Your task to perform on an android device: Is it going to rain this weekend? Image 0: 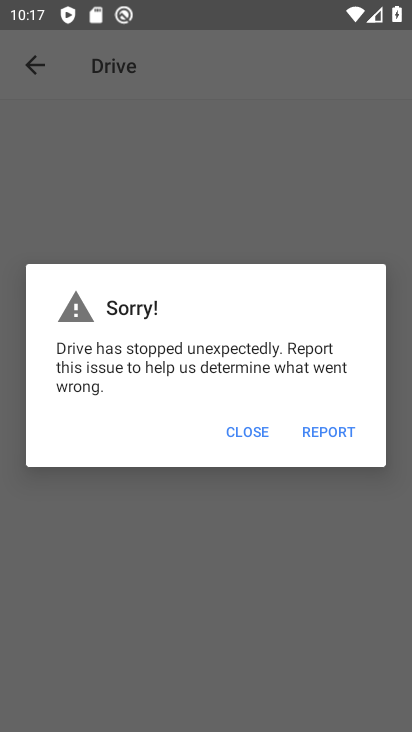
Step 0: press home button
Your task to perform on an android device: Is it going to rain this weekend? Image 1: 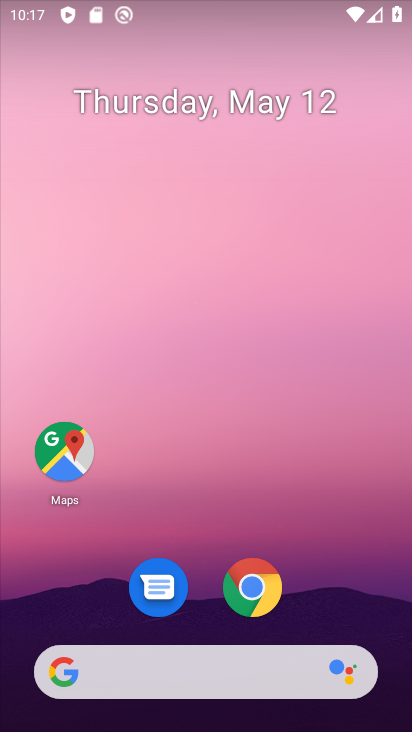
Step 1: drag from (353, 499) to (391, 65)
Your task to perform on an android device: Is it going to rain this weekend? Image 2: 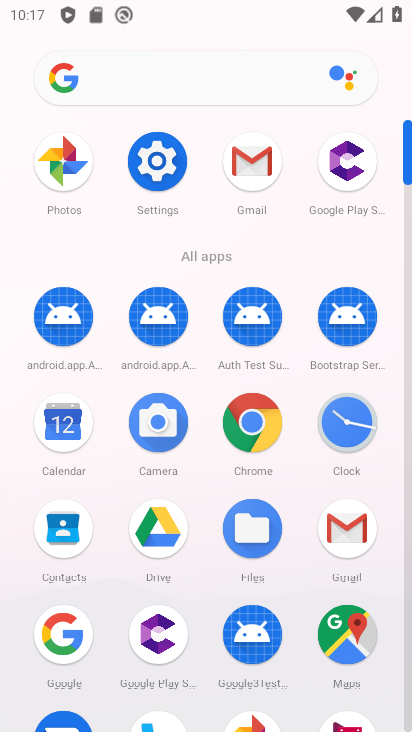
Step 2: press home button
Your task to perform on an android device: Is it going to rain this weekend? Image 3: 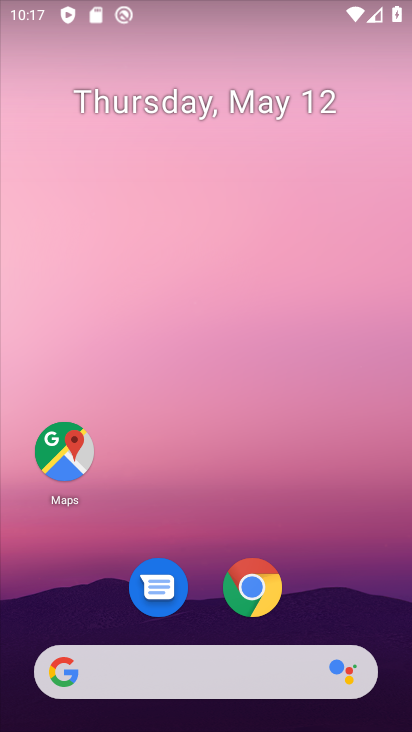
Step 3: drag from (356, 517) to (354, 228)
Your task to perform on an android device: Is it going to rain this weekend? Image 4: 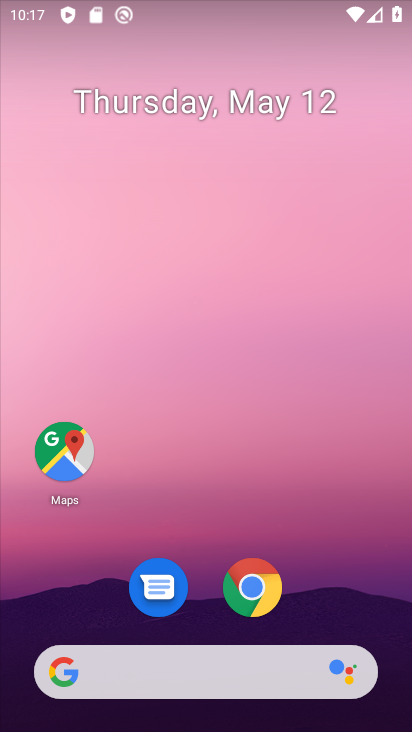
Step 4: drag from (338, 587) to (357, 69)
Your task to perform on an android device: Is it going to rain this weekend? Image 5: 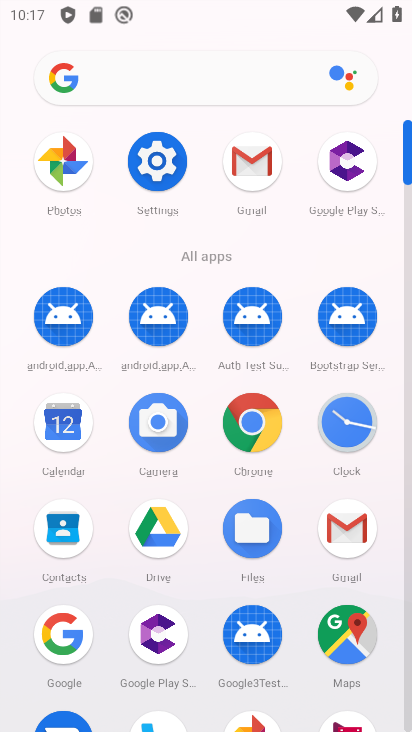
Step 5: click (49, 635)
Your task to perform on an android device: Is it going to rain this weekend? Image 6: 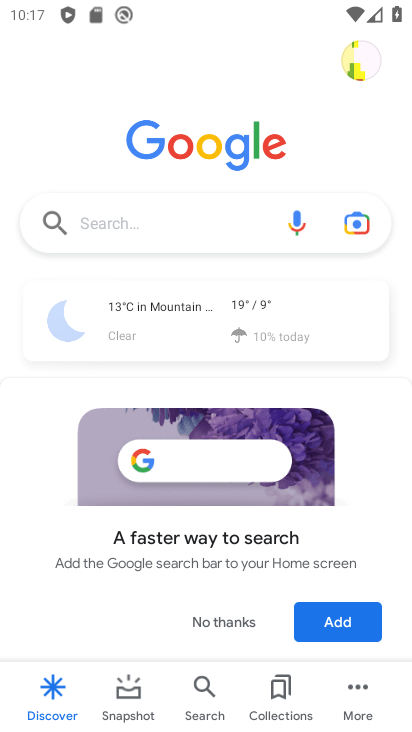
Step 6: click (164, 321)
Your task to perform on an android device: Is it going to rain this weekend? Image 7: 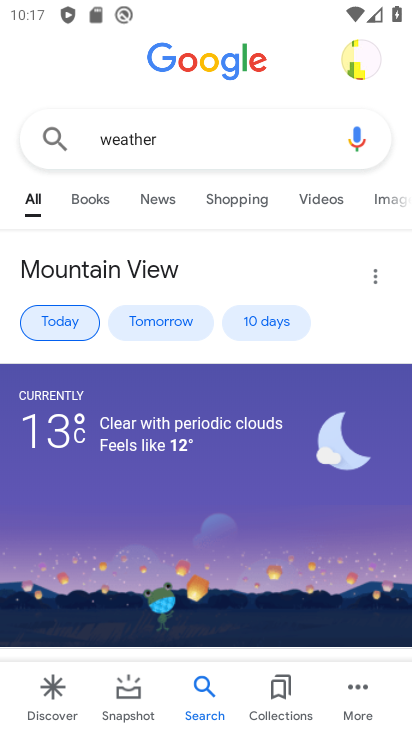
Step 7: task complete